Your task to perform on an android device: turn on data saver in the chrome app Image 0: 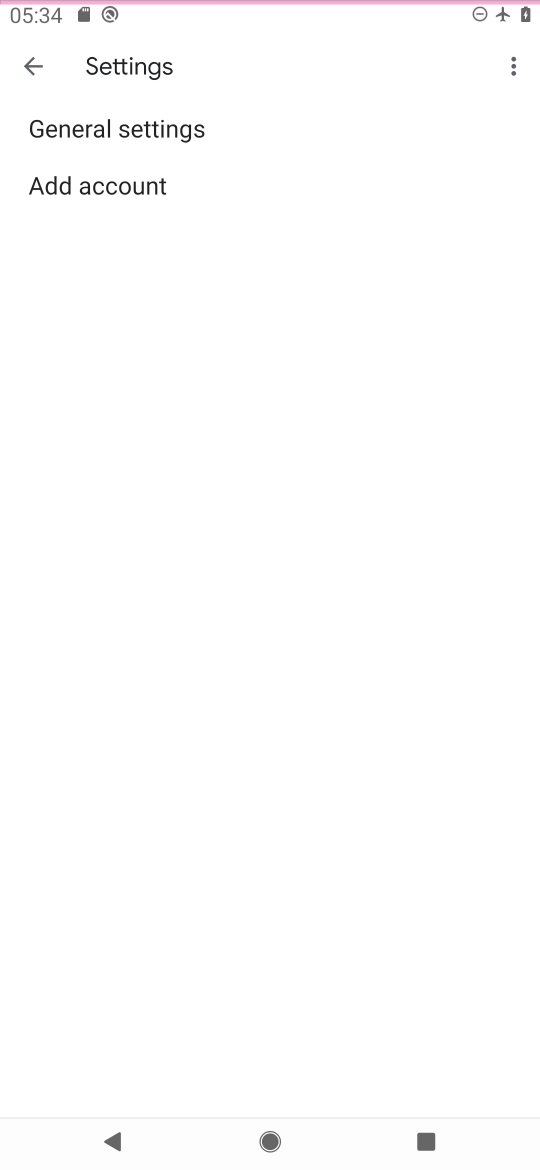
Step 0: press home button
Your task to perform on an android device: turn on data saver in the chrome app Image 1: 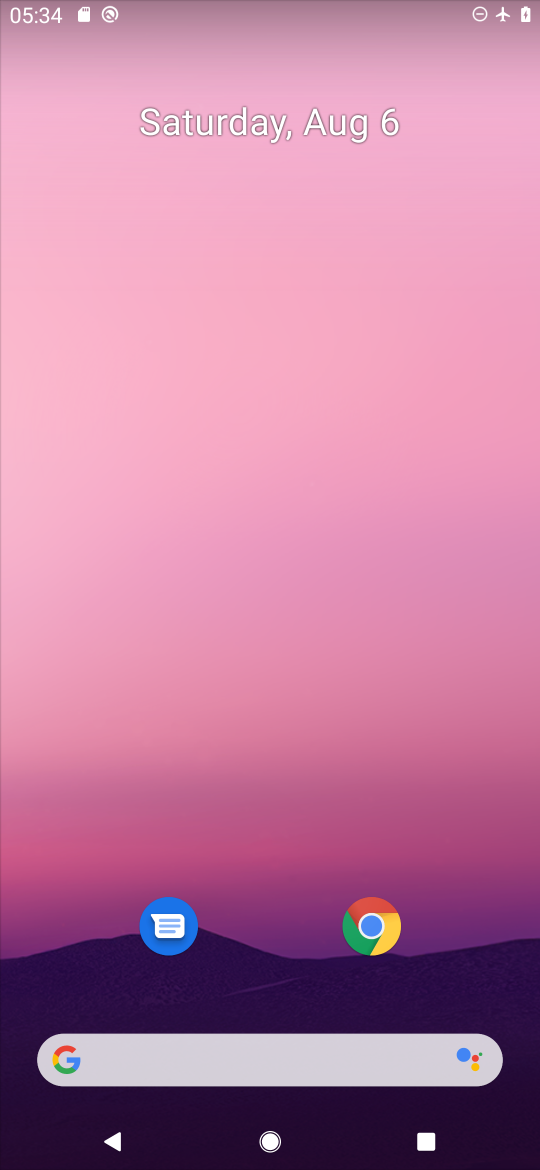
Step 1: drag from (262, 791) to (262, 257)
Your task to perform on an android device: turn on data saver in the chrome app Image 2: 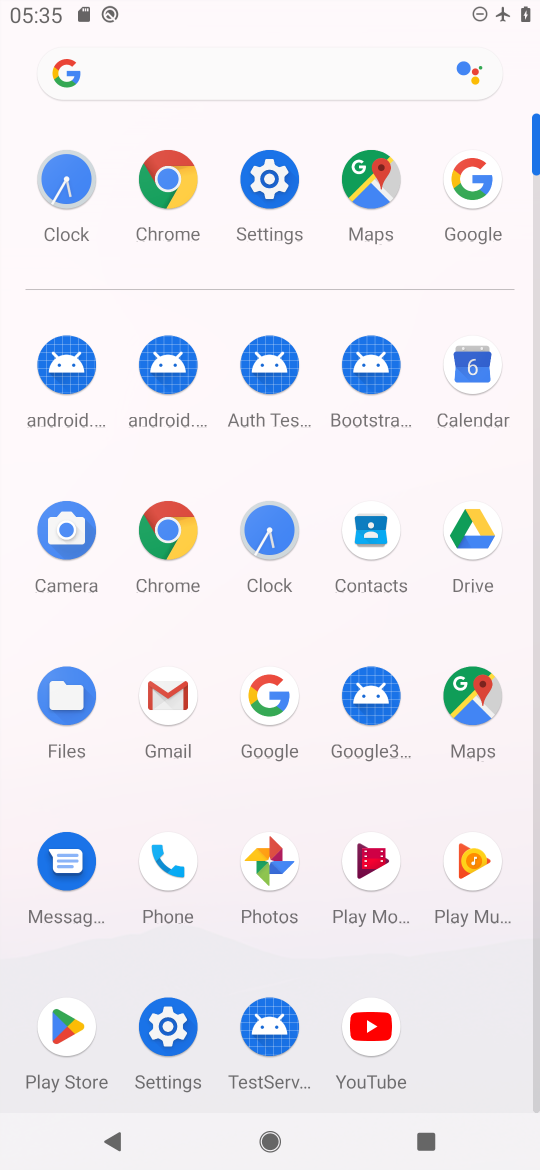
Step 2: click (164, 180)
Your task to perform on an android device: turn on data saver in the chrome app Image 3: 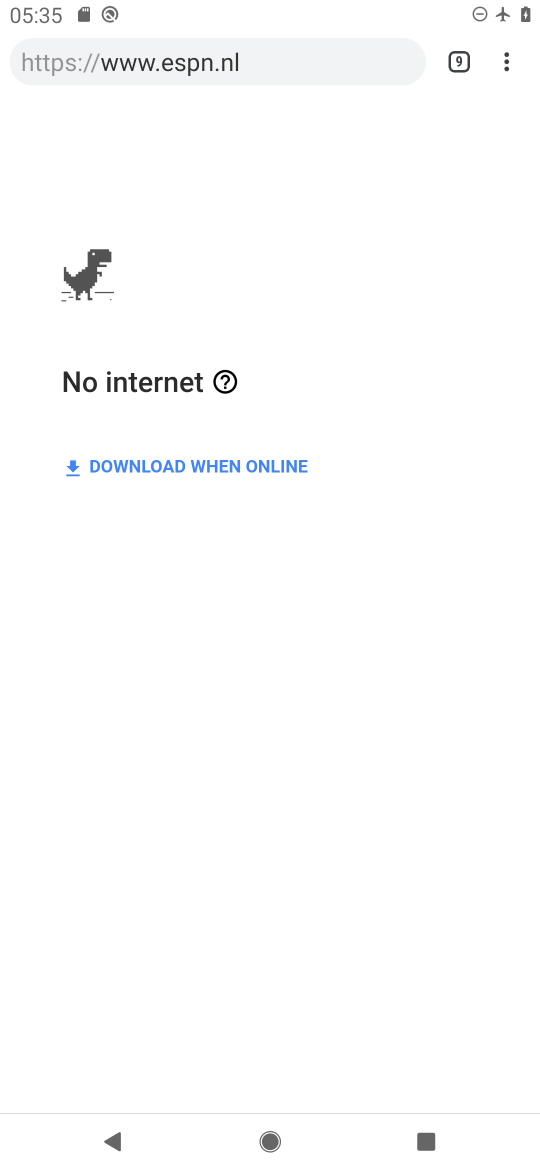
Step 3: click (500, 60)
Your task to perform on an android device: turn on data saver in the chrome app Image 4: 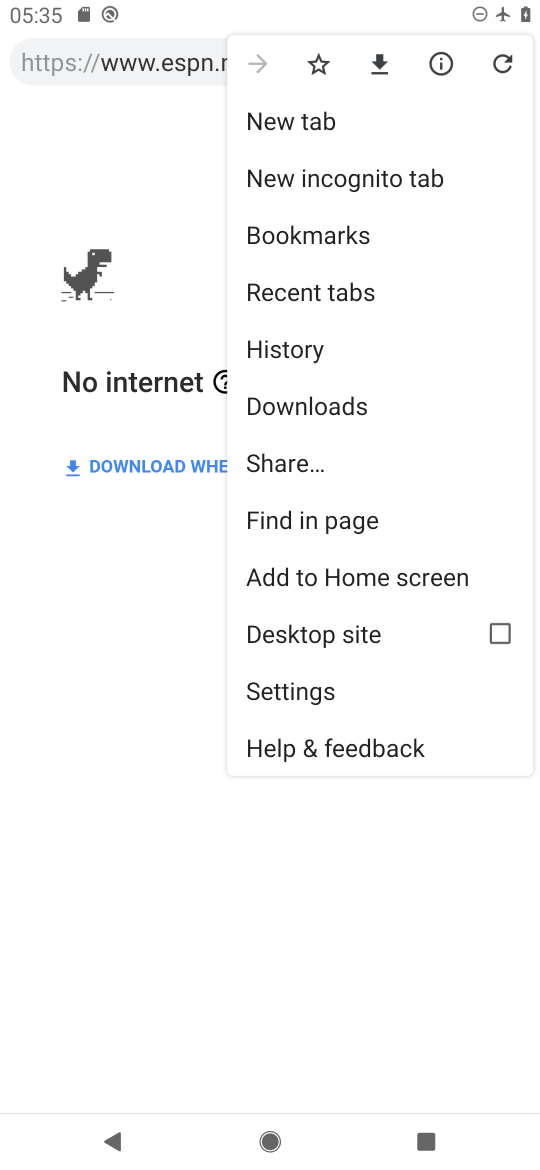
Step 4: click (323, 685)
Your task to perform on an android device: turn on data saver in the chrome app Image 5: 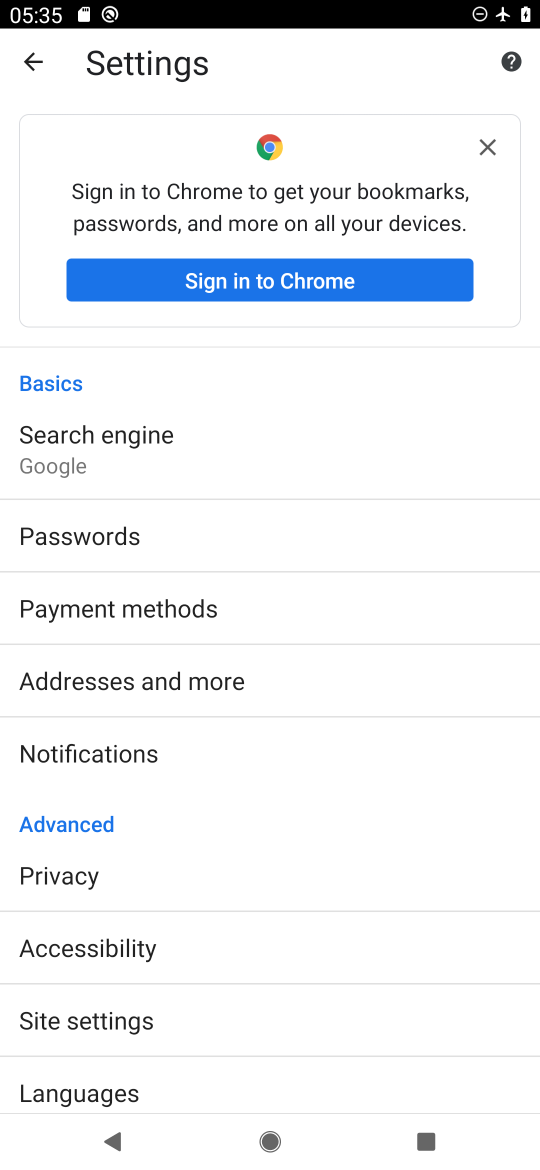
Step 5: drag from (157, 1061) to (157, 537)
Your task to perform on an android device: turn on data saver in the chrome app Image 6: 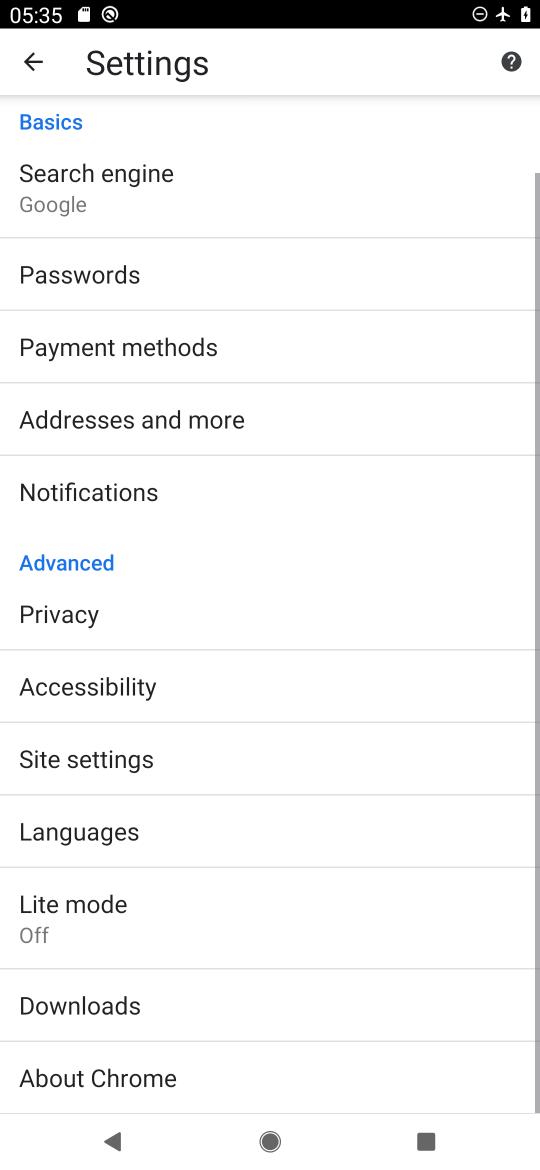
Step 6: click (144, 910)
Your task to perform on an android device: turn on data saver in the chrome app Image 7: 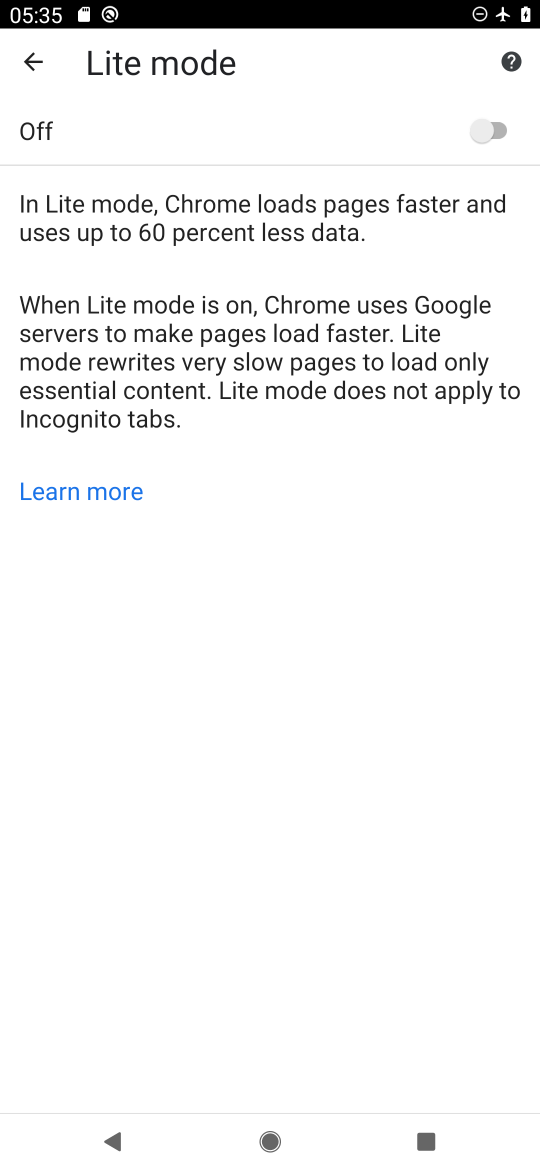
Step 7: click (501, 125)
Your task to perform on an android device: turn on data saver in the chrome app Image 8: 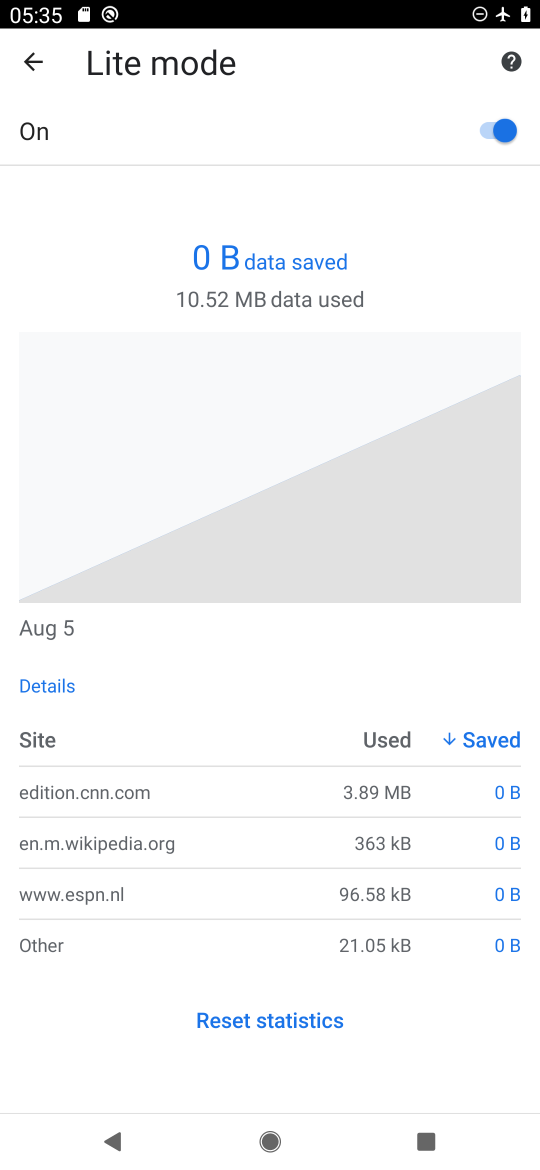
Step 8: task complete